Your task to perform on an android device: delete a single message in the gmail app Image 0: 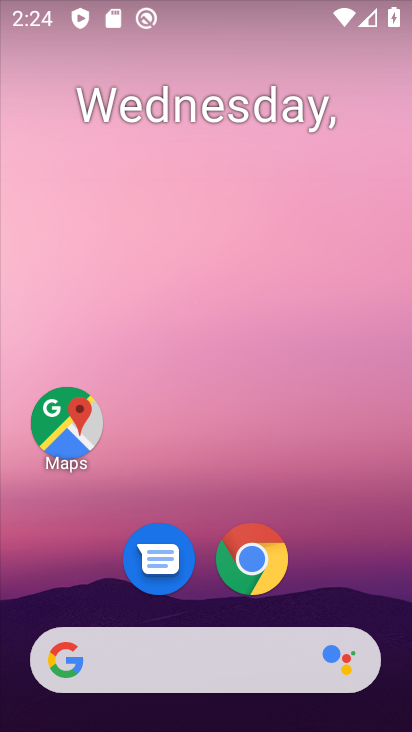
Step 0: drag from (207, 713) to (208, 0)
Your task to perform on an android device: delete a single message in the gmail app Image 1: 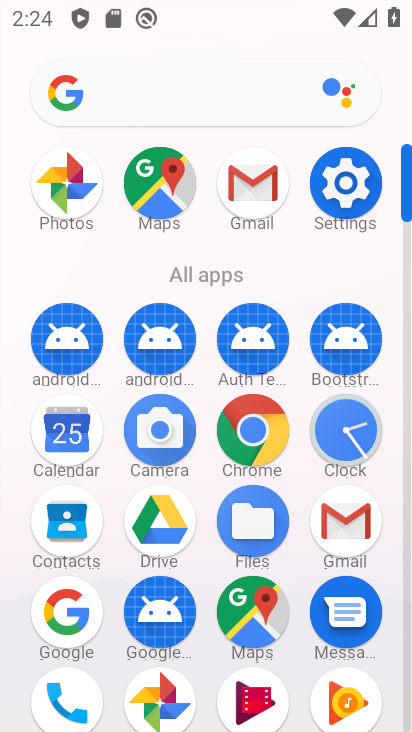
Step 1: click (345, 526)
Your task to perform on an android device: delete a single message in the gmail app Image 2: 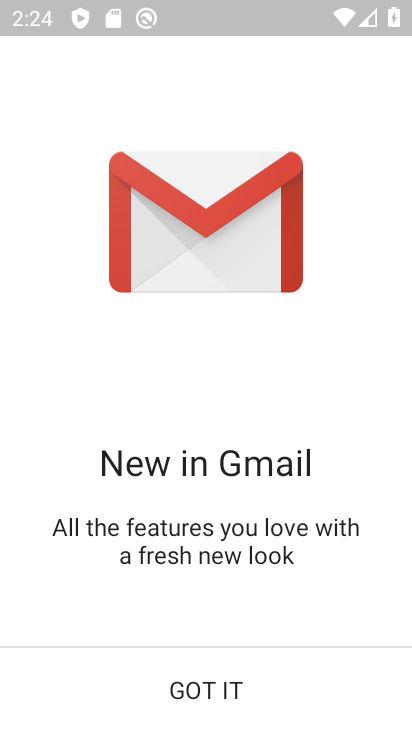
Step 2: click (228, 692)
Your task to perform on an android device: delete a single message in the gmail app Image 3: 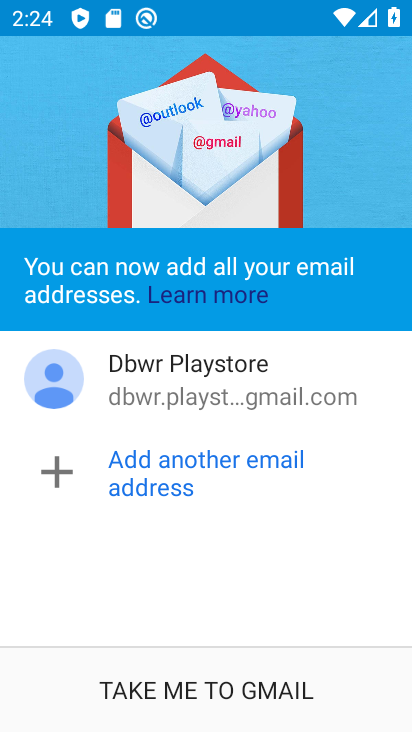
Step 3: click (224, 686)
Your task to perform on an android device: delete a single message in the gmail app Image 4: 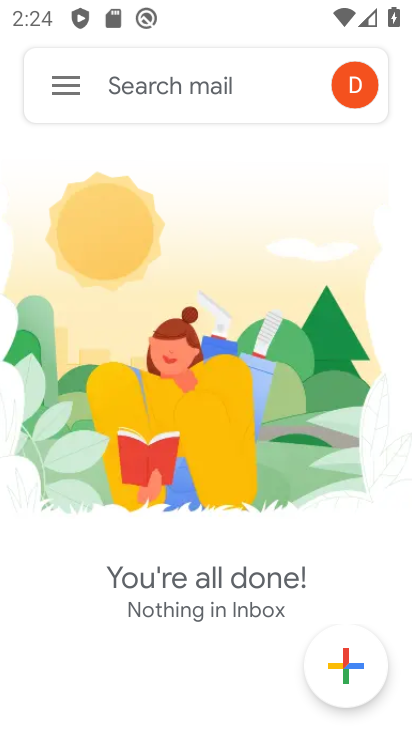
Step 4: task complete